Your task to perform on an android device: turn smart compose on in the gmail app Image 0: 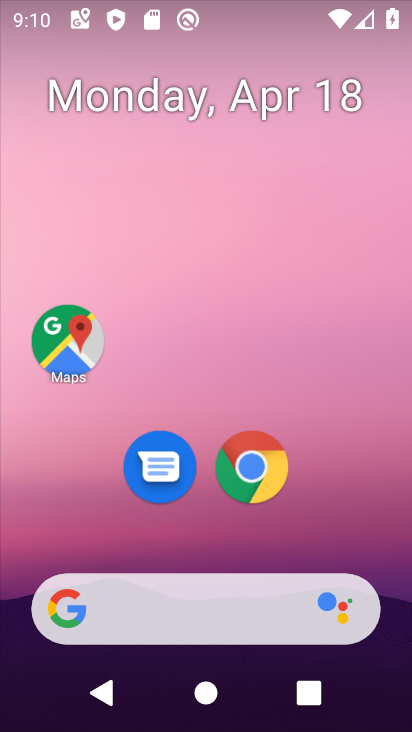
Step 0: drag from (11, 542) to (61, 473)
Your task to perform on an android device: turn smart compose on in the gmail app Image 1: 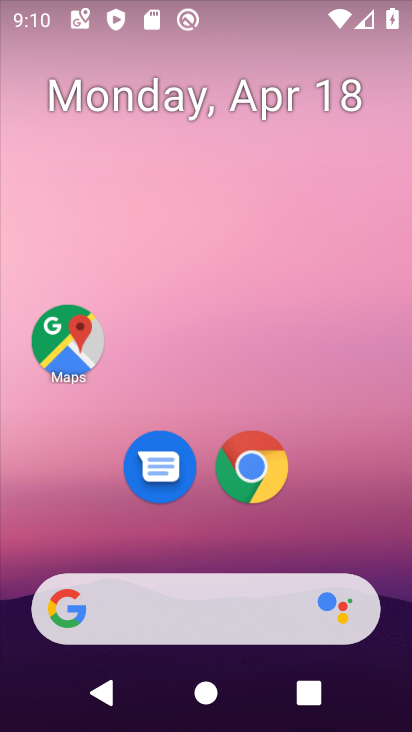
Step 1: drag from (364, 555) to (304, 63)
Your task to perform on an android device: turn smart compose on in the gmail app Image 2: 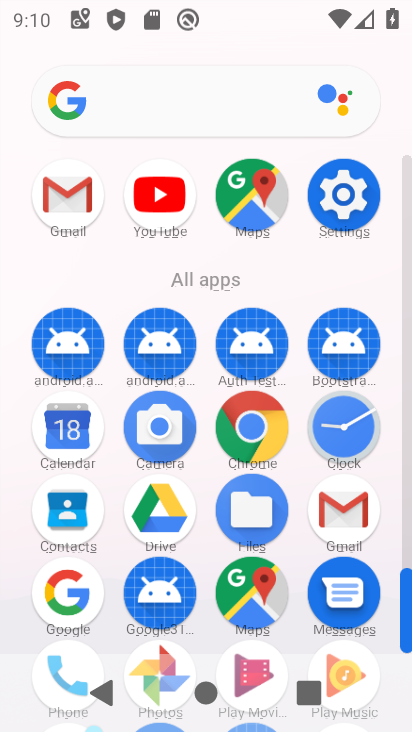
Step 2: click (78, 216)
Your task to perform on an android device: turn smart compose on in the gmail app Image 3: 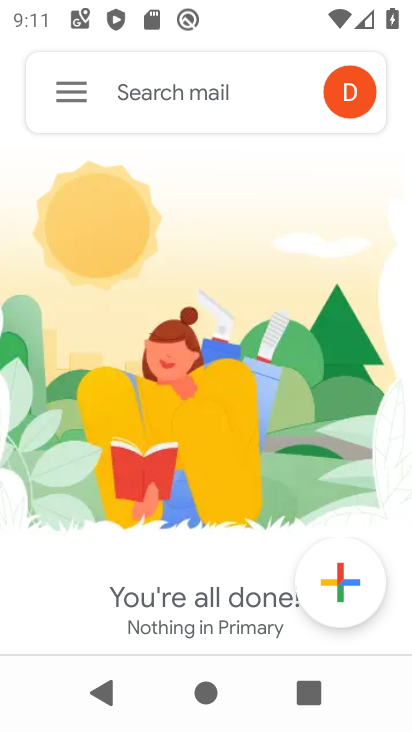
Step 3: click (47, 95)
Your task to perform on an android device: turn smart compose on in the gmail app Image 4: 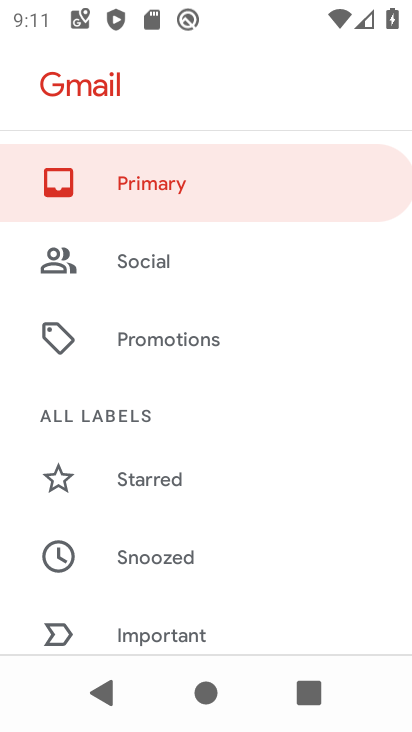
Step 4: drag from (320, 581) to (300, 64)
Your task to perform on an android device: turn smart compose on in the gmail app Image 5: 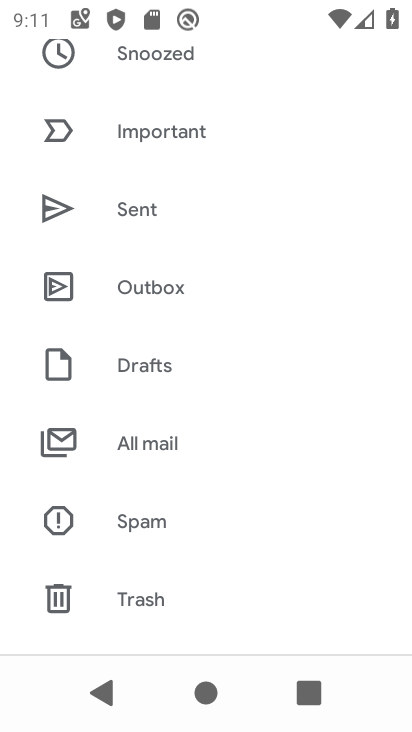
Step 5: drag from (127, 561) to (226, 95)
Your task to perform on an android device: turn smart compose on in the gmail app Image 6: 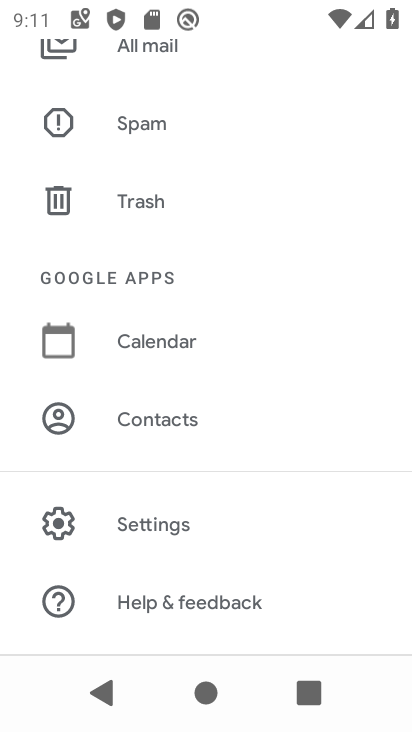
Step 6: click (145, 517)
Your task to perform on an android device: turn smart compose on in the gmail app Image 7: 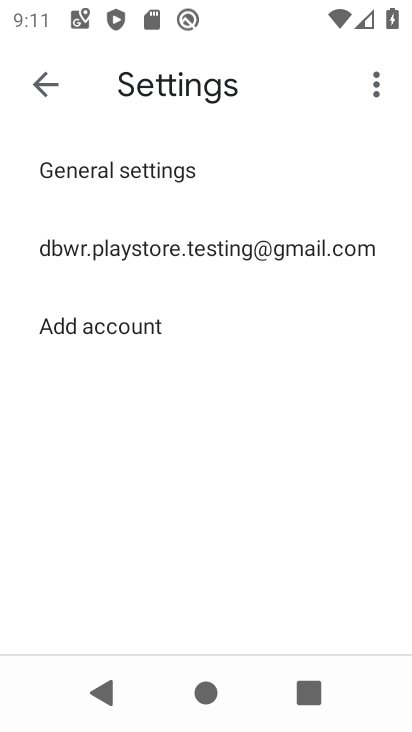
Step 7: click (196, 263)
Your task to perform on an android device: turn smart compose on in the gmail app Image 8: 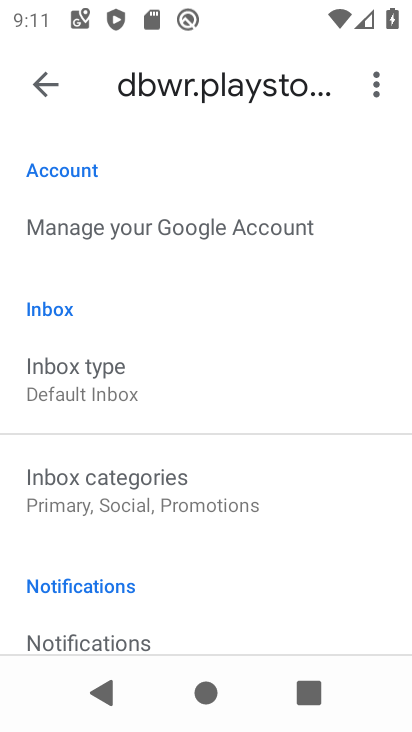
Step 8: task complete